Your task to perform on an android device: Open the phone app and click the voicemail tab. Image 0: 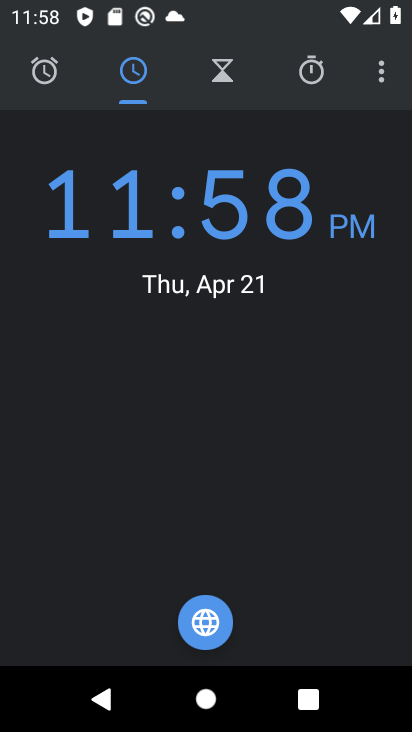
Step 0: press home button
Your task to perform on an android device: Open the phone app and click the voicemail tab. Image 1: 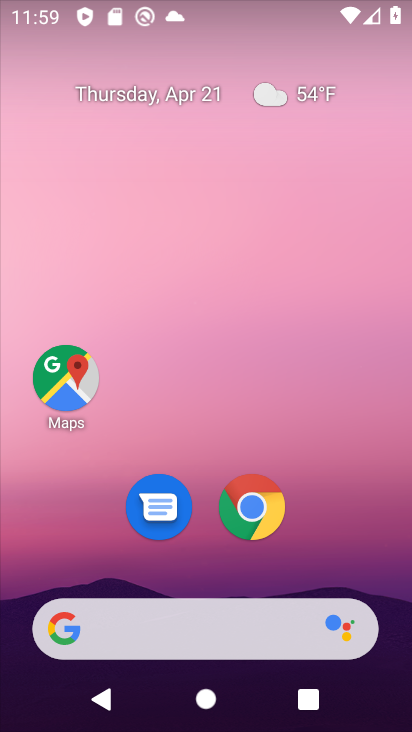
Step 1: drag from (187, 647) to (230, 76)
Your task to perform on an android device: Open the phone app and click the voicemail tab. Image 2: 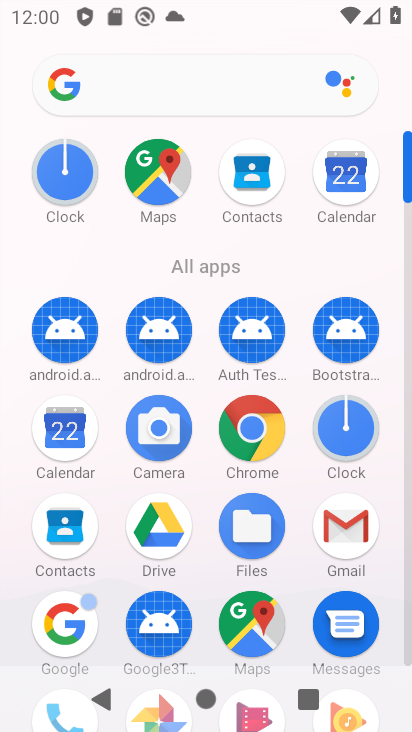
Step 2: drag from (99, 594) to (91, 245)
Your task to perform on an android device: Open the phone app and click the voicemail tab. Image 3: 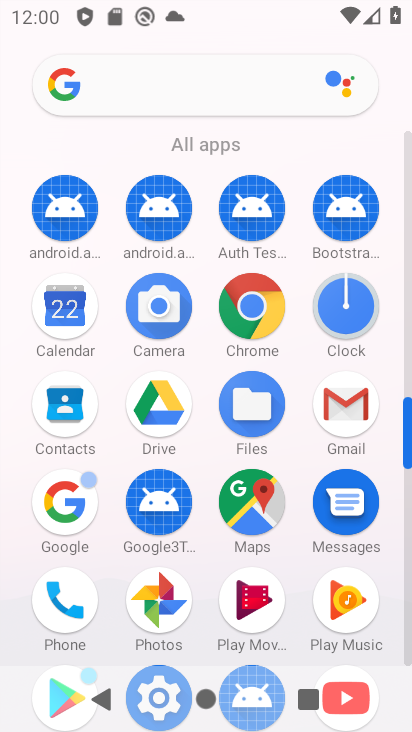
Step 3: click (62, 611)
Your task to perform on an android device: Open the phone app and click the voicemail tab. Image 4: 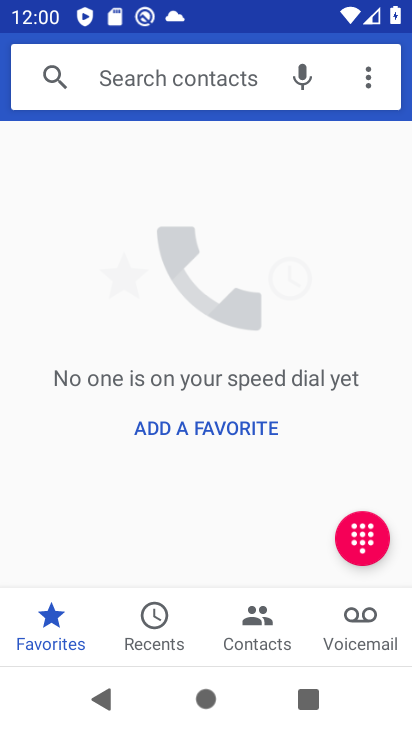
Step 4: click (356, 621)
Your task to perform on an android device: Open the phone app and click the voicemail tab. Image 5: 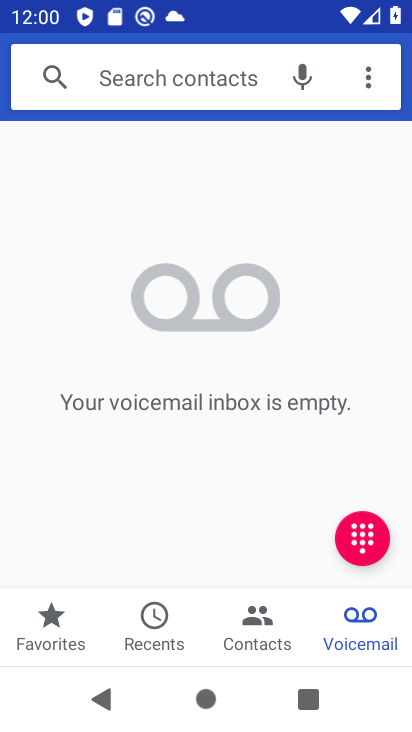
Step 5: task complete